Your task to perform on an android device: Show me recent news Image 0: 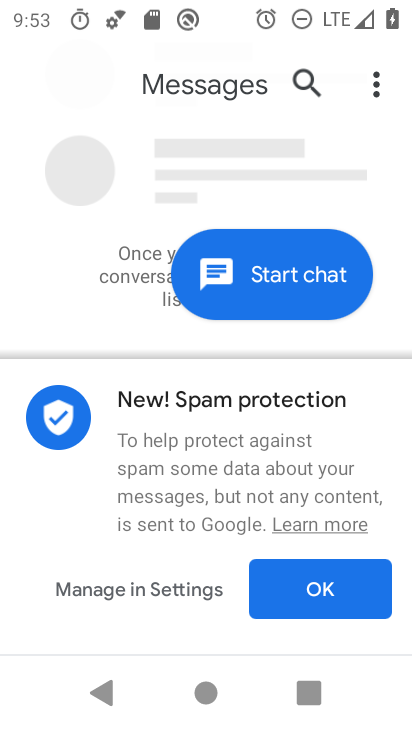
Step 0: press home button
Your task to perform on an android device: Show me recent news Image 1: 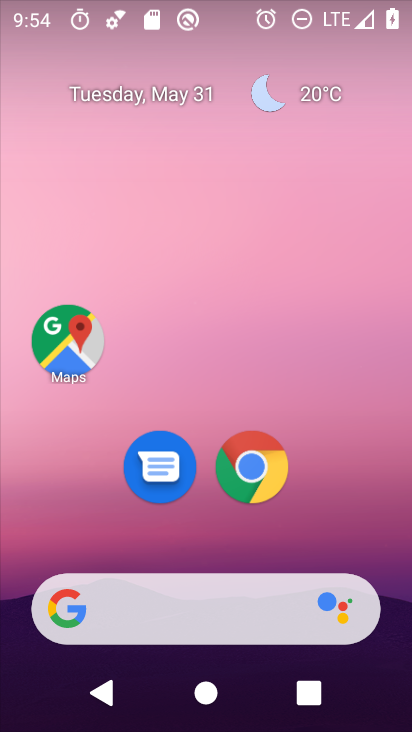
Step 1: drag from (203, 456) to (189, 226)
Your task to perform on an android device: Show me recent news Image 2: 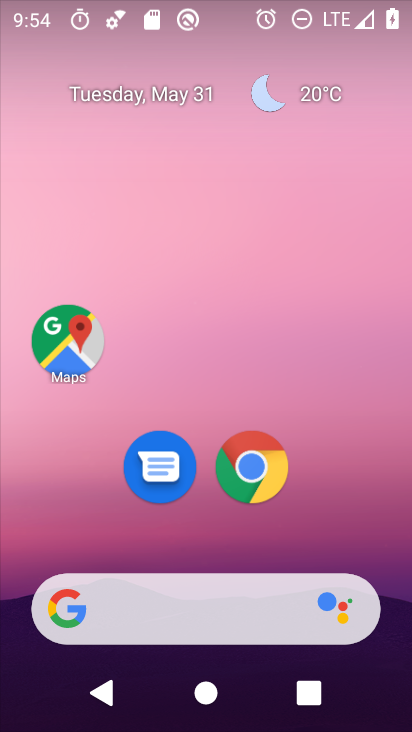
Step 2: drag from (208, 525) to (204, 130)
Your task to perform on an android device: Show me recent news Image 3: 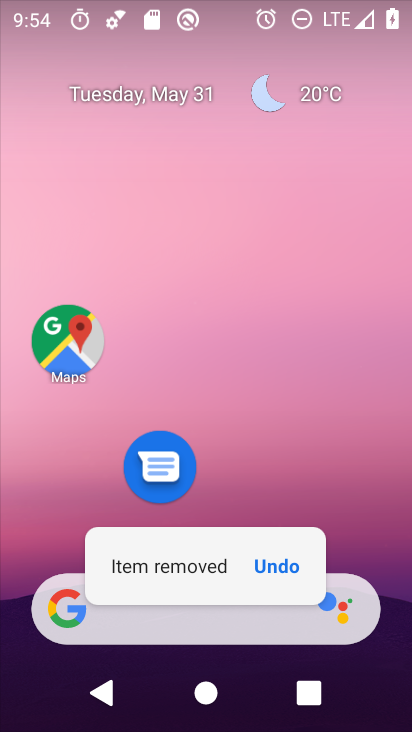
Step 3: drag from (211, 489) to (406, 341)
Your task to perform on an android device: Show me recent news Image 4: 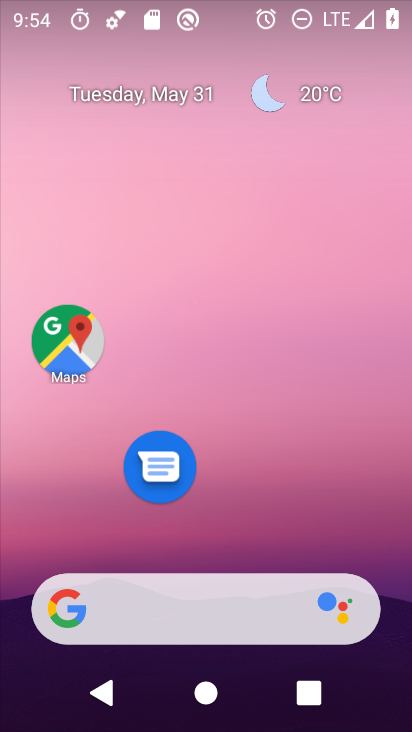
Step 4: drag from (200, 560) to (267, 25)
Your task to perform on an android device: Show me recent news Image 5: 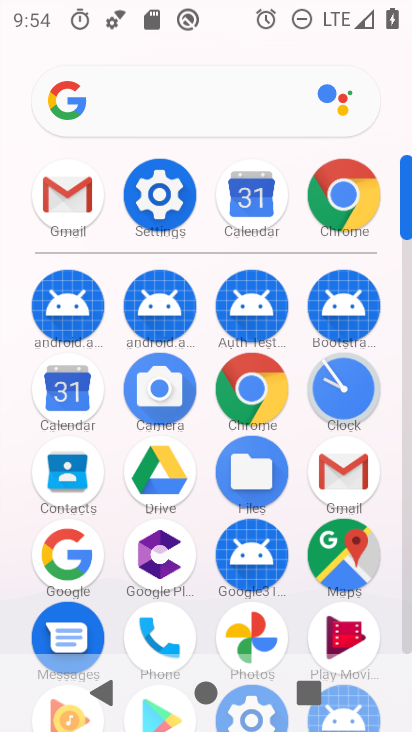
Step 5: drag from (210, 586) to (204, 141)
Your task to perform on an android device: Show me recent news Image 6: 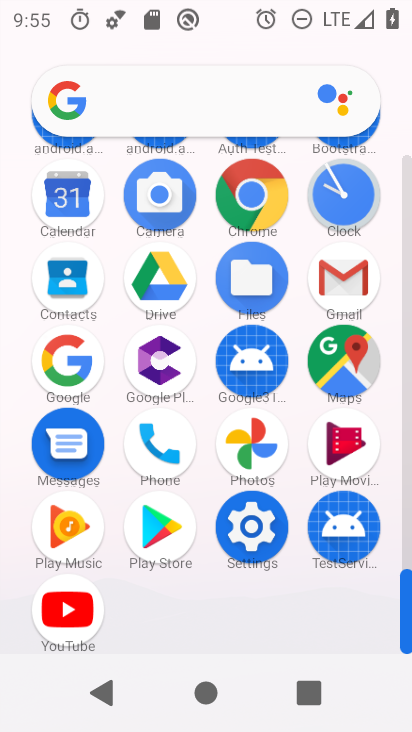
Step 6: click (167, 103)
Your task to perform on an android device: Show me recent news Image 7: 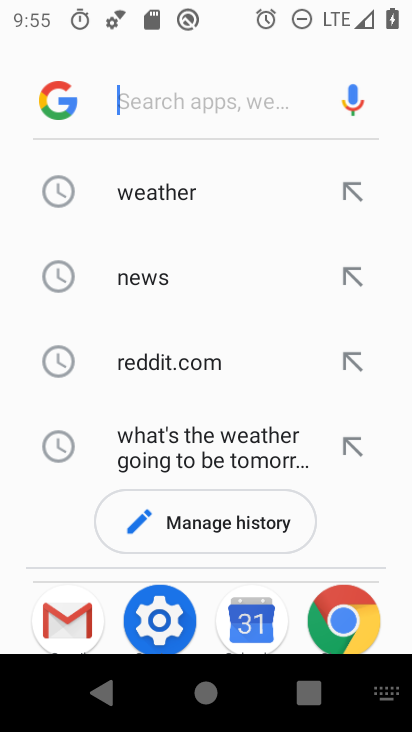
Step 7: type "recent news"
Your task to perform on an android device: Show me recent news Image 8: 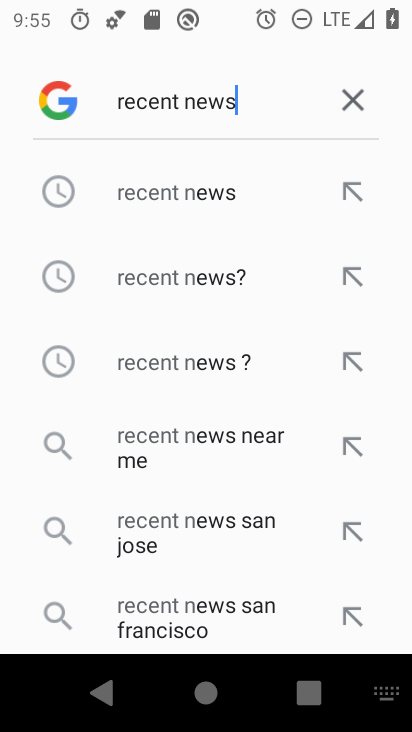
Step 8: type ""
Your task to perform on an android device: Show me recent news Image 9: 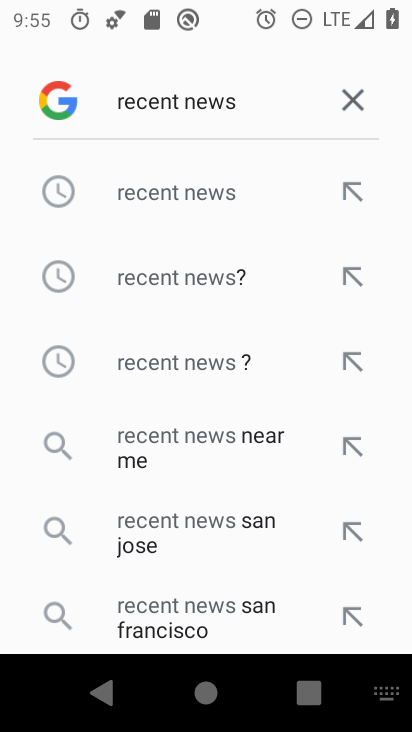
Step 9: click (126, 176)
Your task to perform on an android device: Show me recent news Image 10: 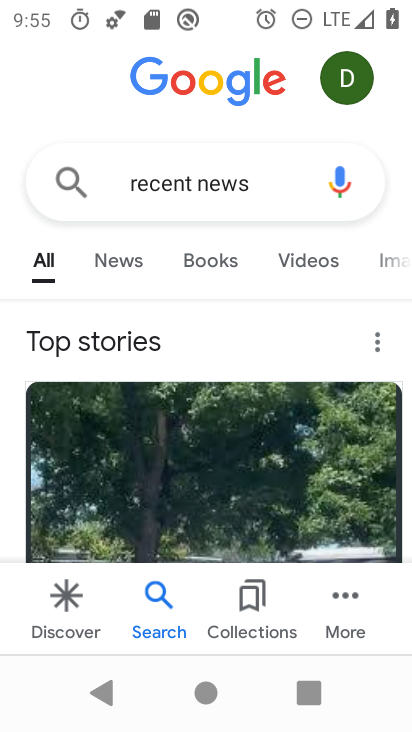
Step 10: task complete